Your task to perform on an android device: Search for sushi restaurants on Maps Image 0: 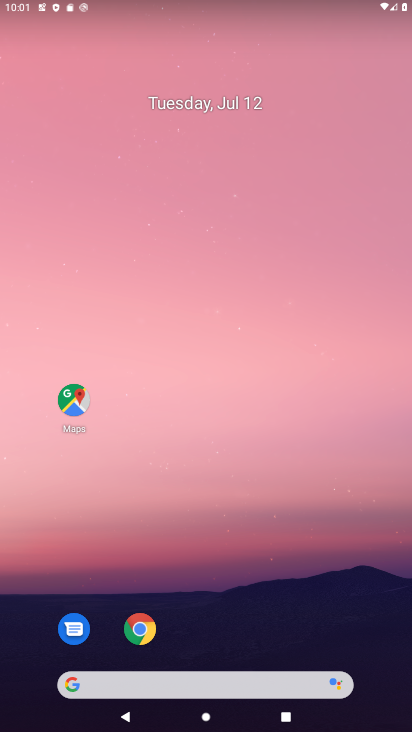
Step 0: drag from (289, 670) to (332, 31)
Your task to perform on an android device: Search for sushi restaurants on Maps Image 1: 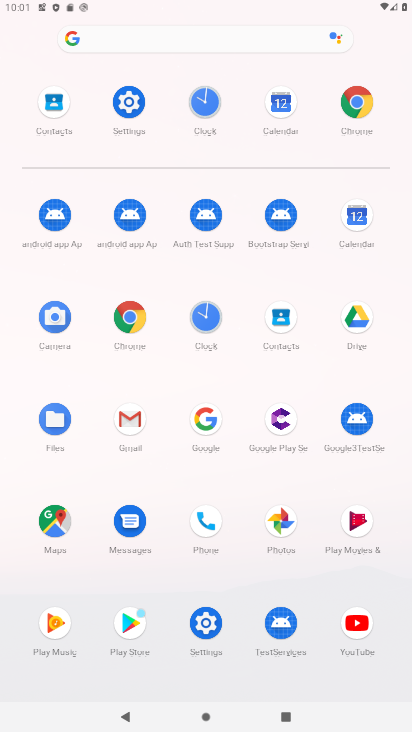
Step 1: click (52, 523)
Your task to perform on an android device: Search for sushi restaurants on Maps Image 2: 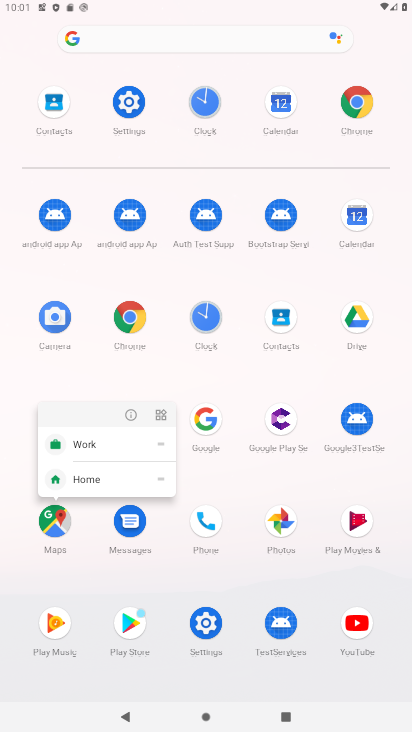
Step 2: click (58, 527)
Your task to perform on an android device: Search for sushi restaurants on Maps Image 3: 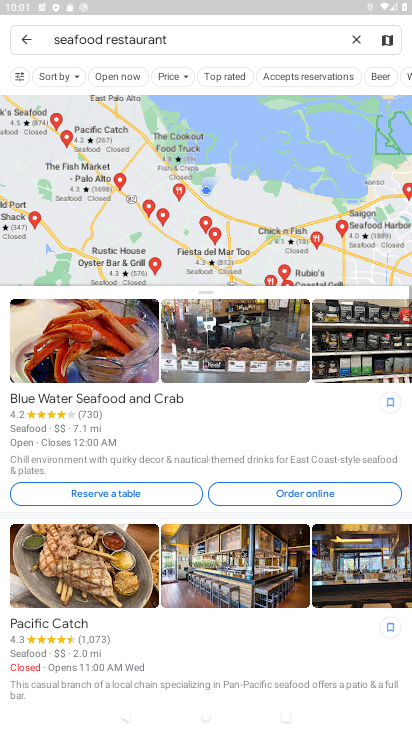
Step 3: press back button
Your task to perform on an android device: Search for sushi restaurants on Maps Image 4: 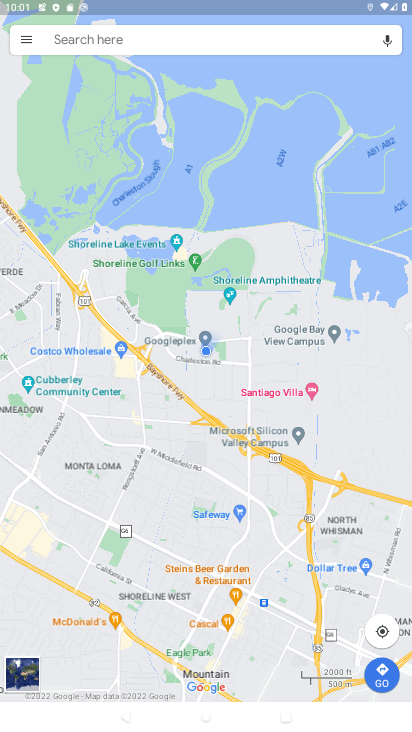
Step 4: click (186, 36)
Your task to perform on an android device: Search for sushi restaurants on Maps Image 5: 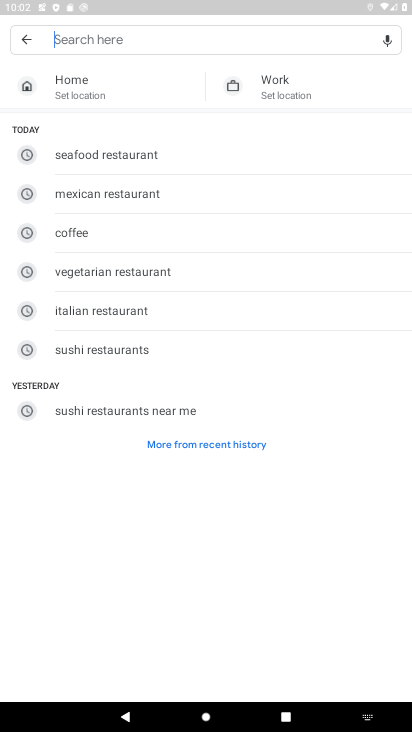
Step 5: click (113, 348)
Your task to perform on an android device: Search for sushi restaurants on Maps Image 6: 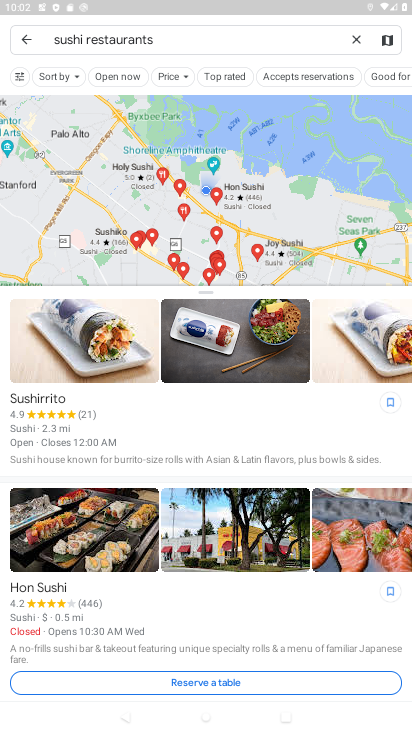
Step 6: task complete